Your task to perform on an android device: What's the weather going to be tomorrow? Image 0: 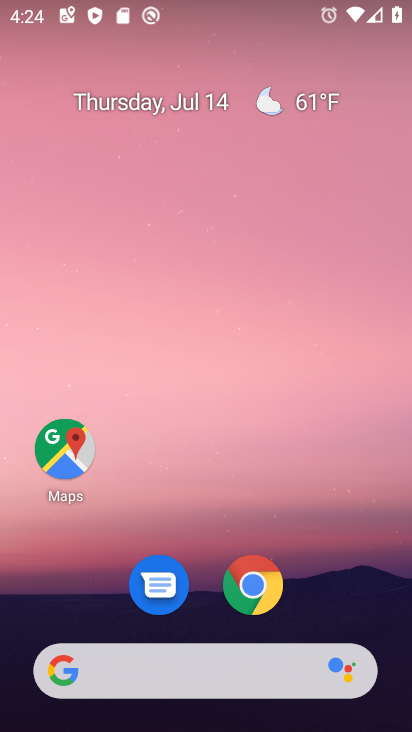
Step 0: click (250, 662)
Your task to perform on an android device: What's the weather going to be tomorrow? Image 1: 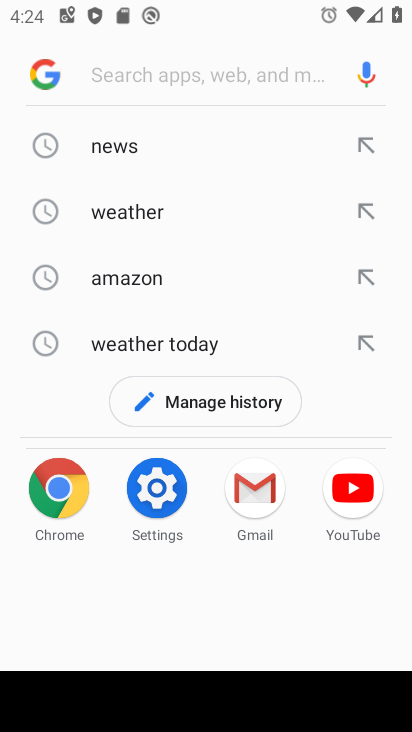
Step 1: click (136, 214)
Your task to perform on an android device: What's the weather going to be tomorrow? Image 2: 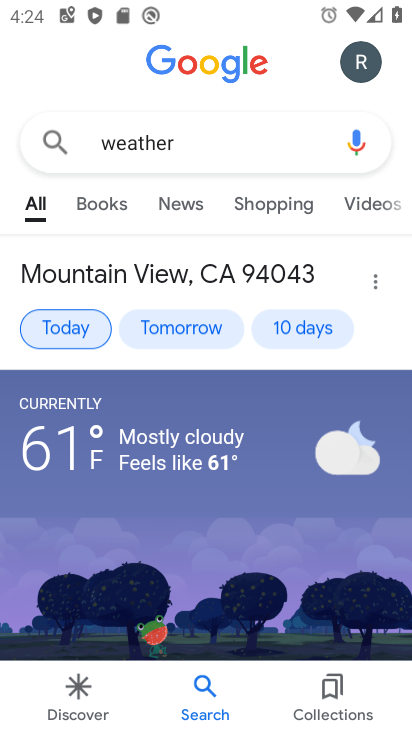
Step 2: click (81, 318)
Your task to perform on an android device: What's the weather going to be tomorrow? Image 3: 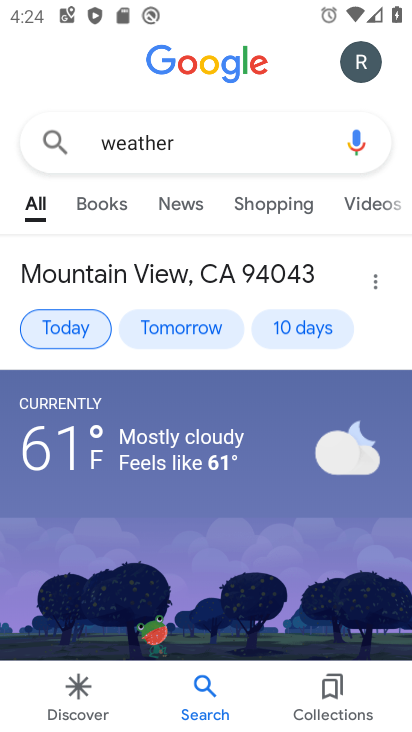
Step 3: click (71, 319)
Your task to perform on an android device: What's the weather going to be tomorrow? Image 4: 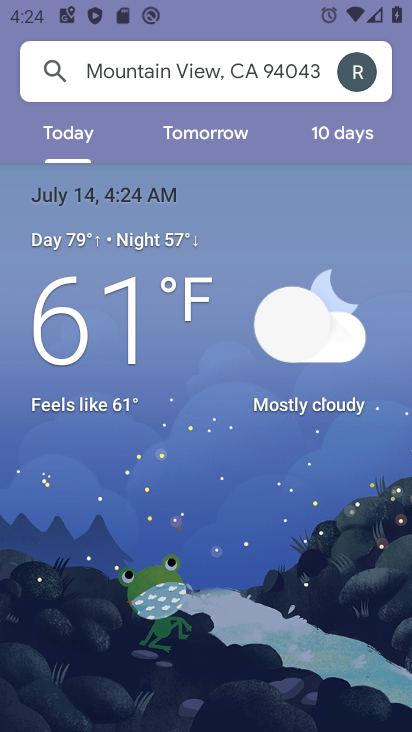
Step 4: click (202, 132)
Your task to perform on an android device: What's the weather going to be tomorrow? Image 5: 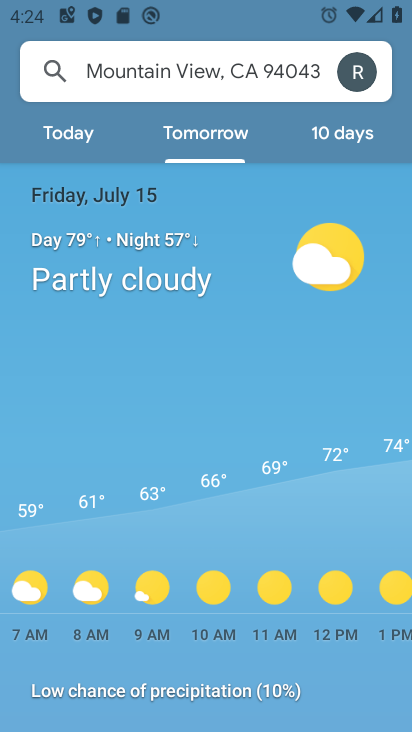
Step 5: task complete